Your task to perform on an android device: Open Google Chrome and click the shortcut for Amazon.com Image 0: 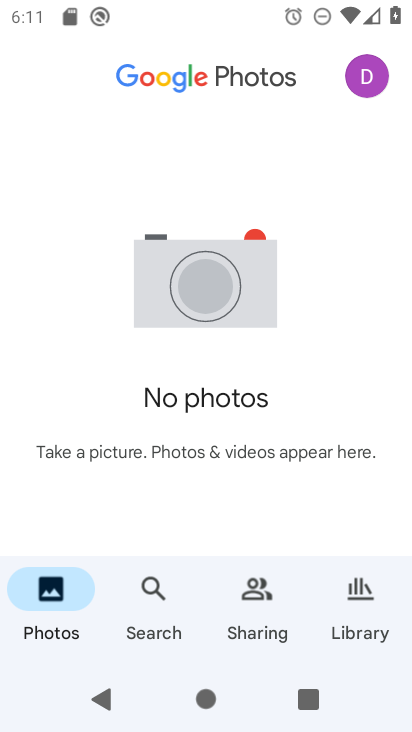
Step 0: press home button
Your task to perform on an android device: Open Google Chrome and click the shortcut for Amazon.com Image 1: 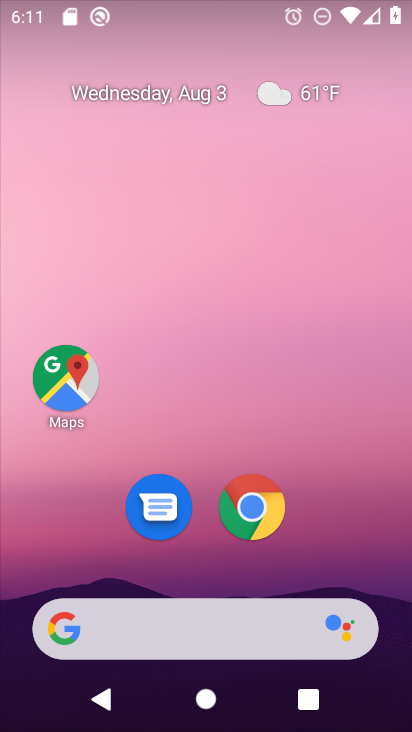
Step 1: drag from (326, 581) to (403, 1)
Your task to perform on an android device: Open Google Chrome and click the shortcut for Amazon.com Image 2: 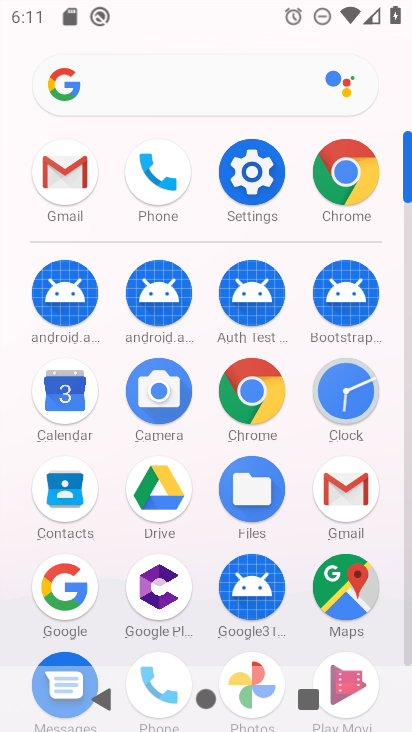
Step 2: click (252, 388)
Your task to perform on an android device: Open Google Chrome and click the shortcut for Amazon.com Image 3: 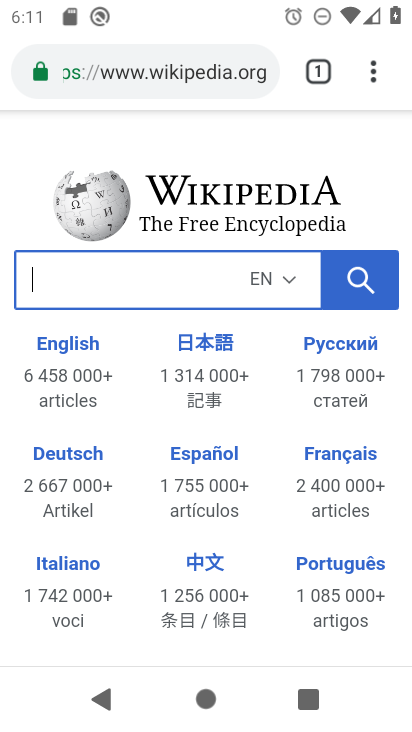
Step 3: drag from (375, 67) to (231, 139)
Your task to perform on an android device: Open Google Chrome and click the shortcut for Amazon.com Image 4: 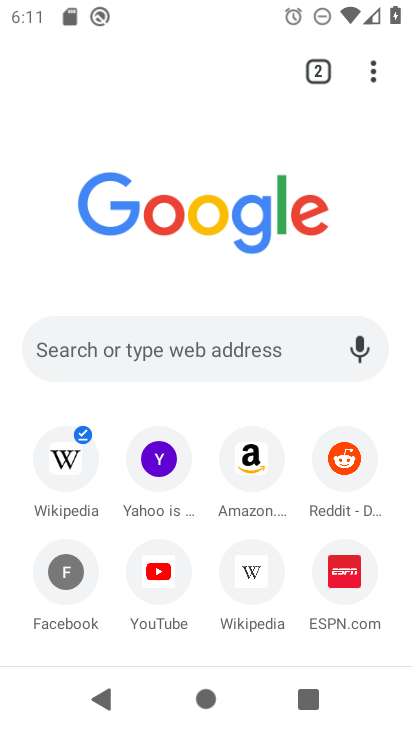
Step 4: click (259, 465)
Your task to perform on an android device: Open Google Chrome and click the shortcut for Amazon.com Image 5: 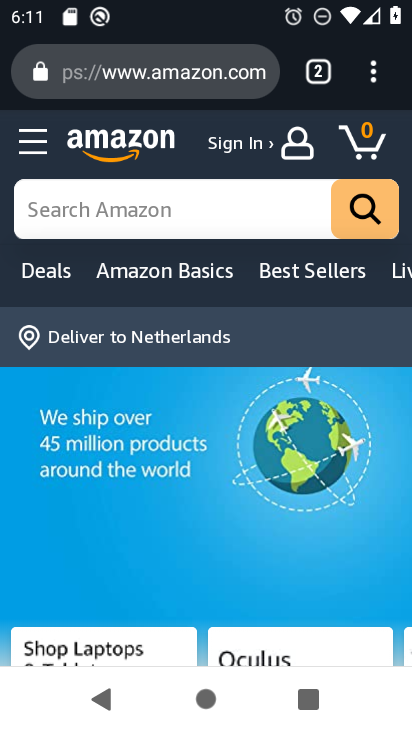
Step 5: task complete